Your task to perform on an android device: What's the weather going to be this weekend? Image 0: 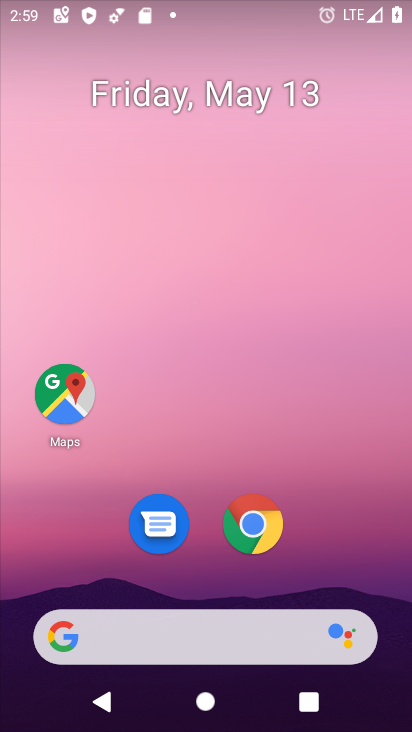
Step 0: click (159, 633)
Your task to perform on an android device: What's the weather going to be this weekend? Image 1: 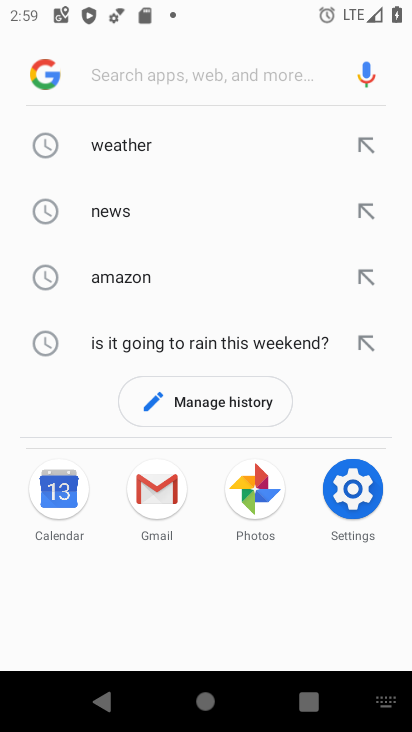
Step 1: click (117, 136)
Your task to perform on an android device: What's the weather going to be this weekend? Image 2: 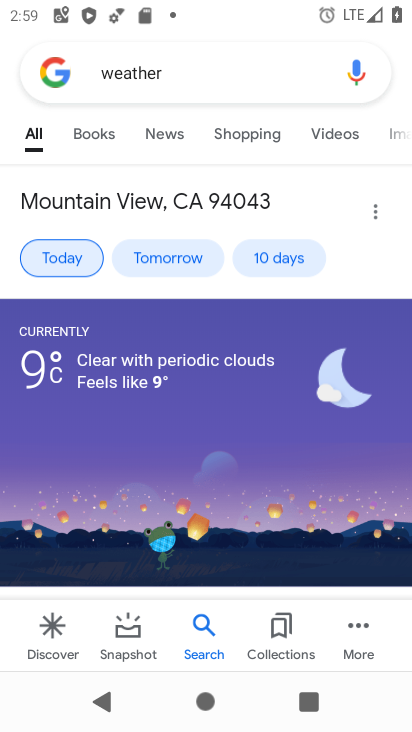
Step 2: click (79, 264)
Your task to perform on an android device: What's the weather going to be this weekend? Image 3: 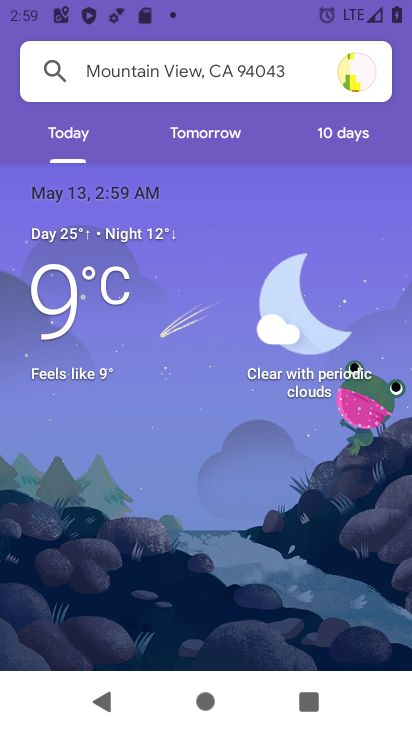
Step 3: click (351, 136)
Your task to perform on an android device: What's the weather going to be this weekend? Image 4: 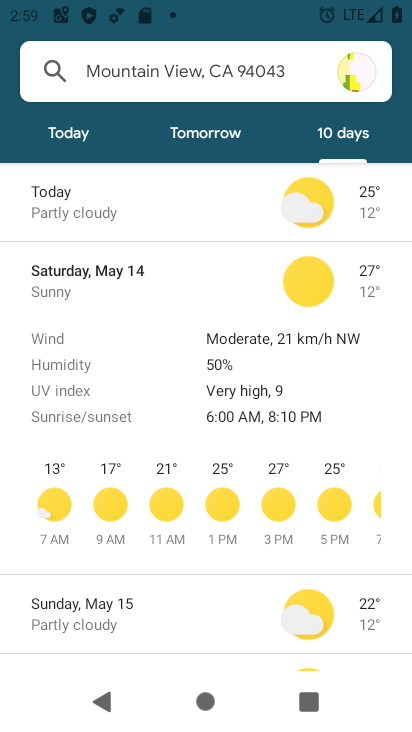
Step 4: task complete